Your task to perform on an android device: Open Google Maps Image 0: 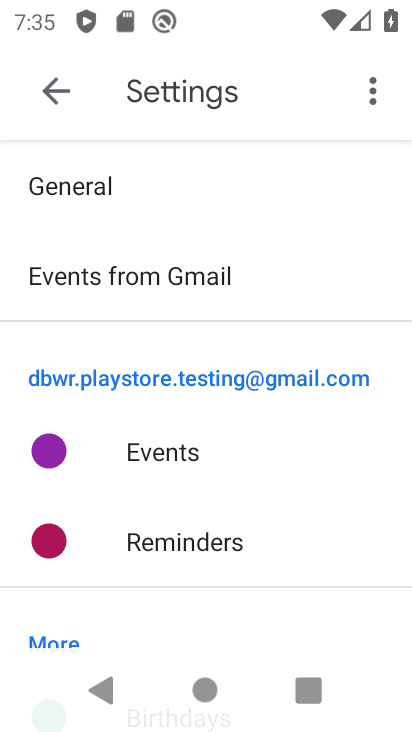
Step 0: press home button
Your task to perform on an android device: Open Google Maps Image 1: 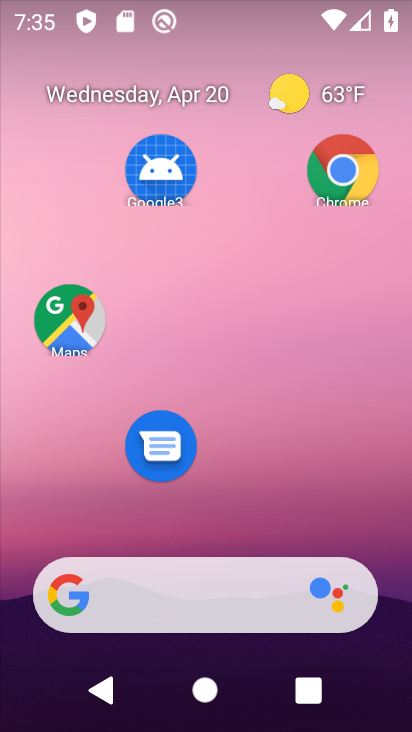
Step 1: click (65, 325)
Your task to perform on an android device: Open Google Maps Image 2: 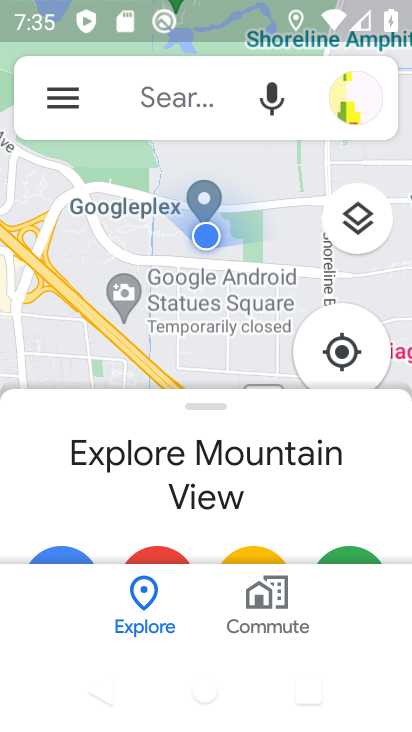
Step 2: task complete